Your task to perform on an android device: read, delete, or share a saved page in the chrome app Image 0: 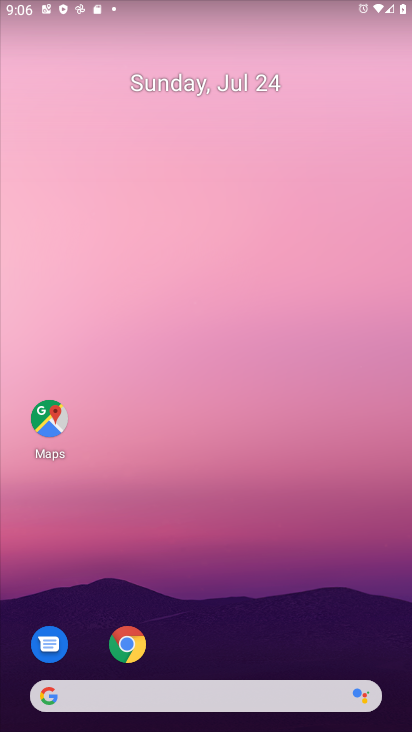
Step 0: drag from (213, 713) to (272, 207)
Your task to perform on an android device: read, delete, or share a saved page in the chrome app Image 1: 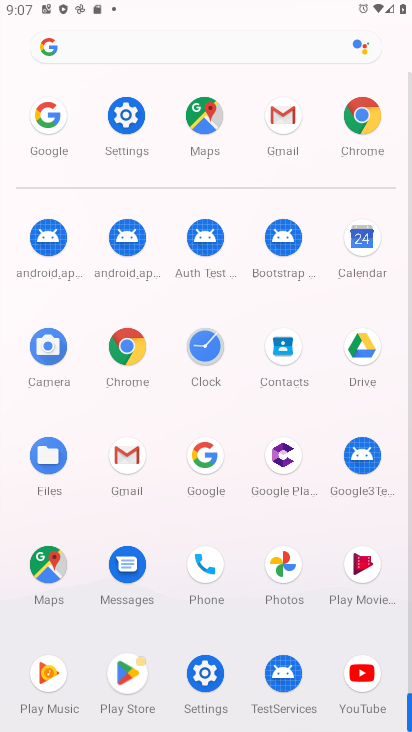
Step 1: click (112, 348)
Your task to perform on an android device: read, delete, or share a saved page in the chrome app Image 2: 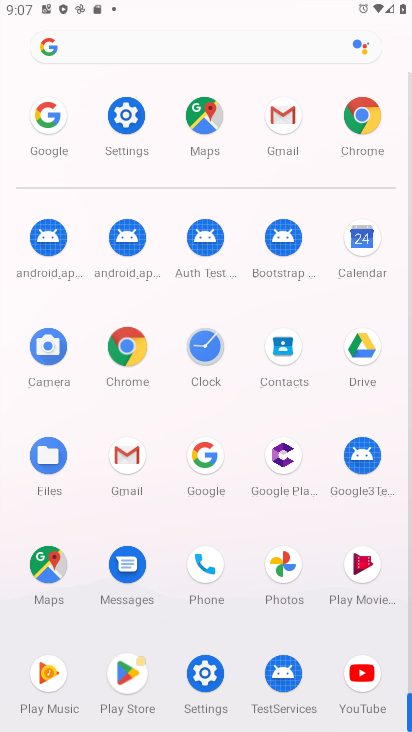
Step 2: click (112, 348)
Your task to perform on an android device: read, delete, or share a saved page in the chrome app Image 3: 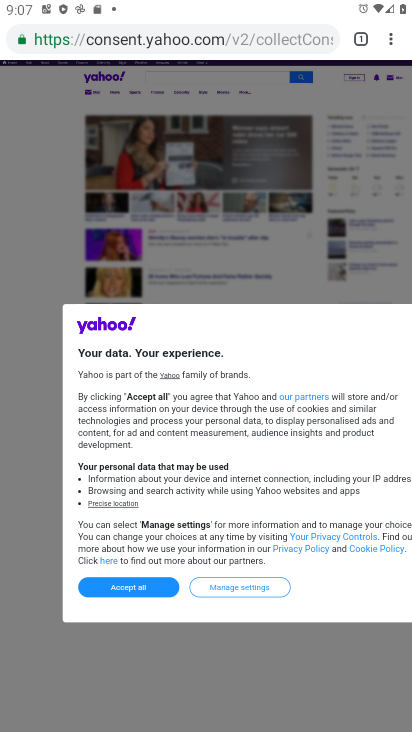
Step 3: drag from (391, 29) to (260, 258)
Your task to perform on an android device: read, delete, or share a saved page in the chrome app Image 4: 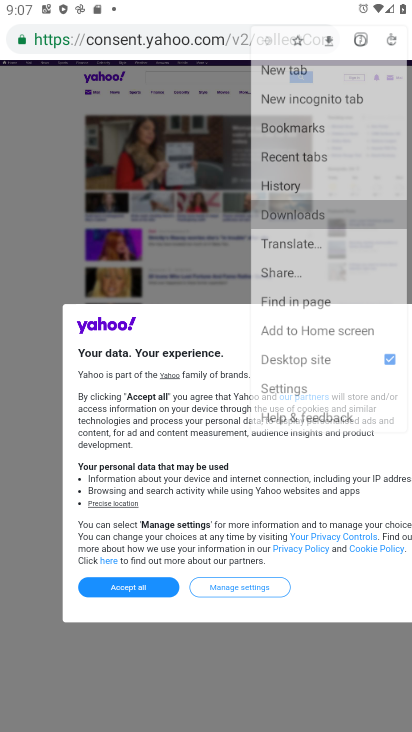
Step 4: click (274, 257)
Your task to perform on an android device: read, delete, or share a saved page in the chrome app Image 5: 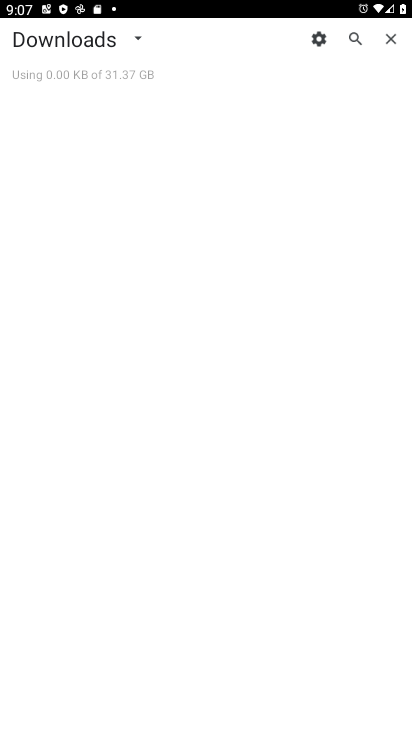
Step 5: click (137, 34)
Your task to perform on an android device: read, delete, or share a saved page in the chrome app Image 6: 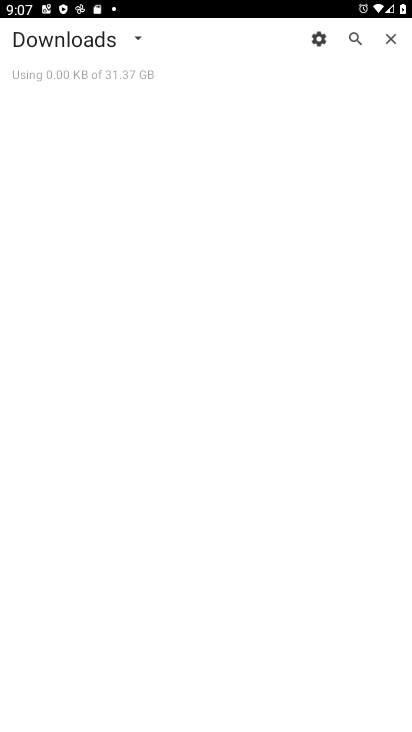
Step 6: click (141, 36)
Your task to perform on an android device: read, delete, or share a saved page in the chrome app Image 7: 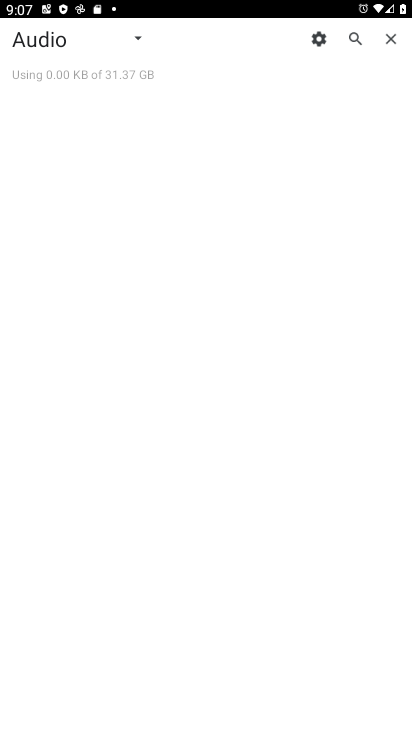
Step 7: click (136, 38)
Your task to perform on an android device: read, delete, or share a saved page in the chrome app Image 8: 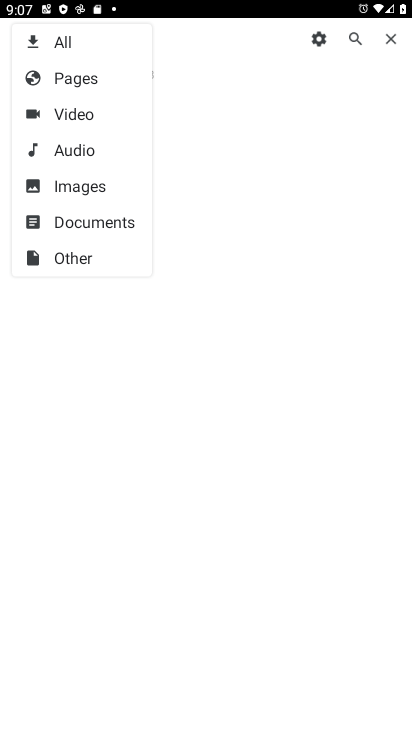
Step 8: click (91, 108)
Your task to perform on an android device: read, delete, or share a saved page in the chrome app Image 9: 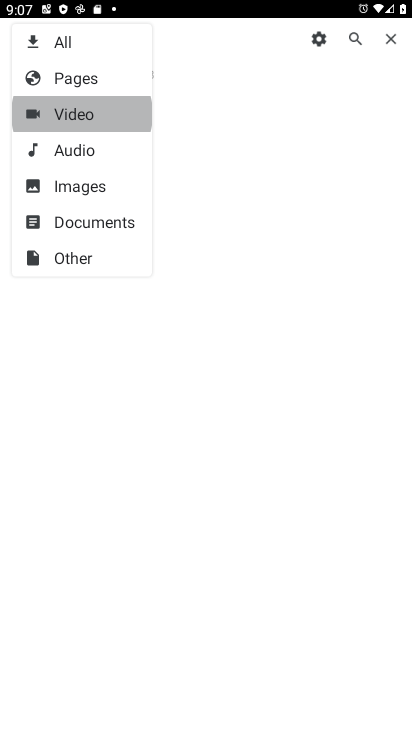
Step 9: click (90, 107)
Your task to perform on an android device: read, delete, or share a saved page in the chrome app Image 10: 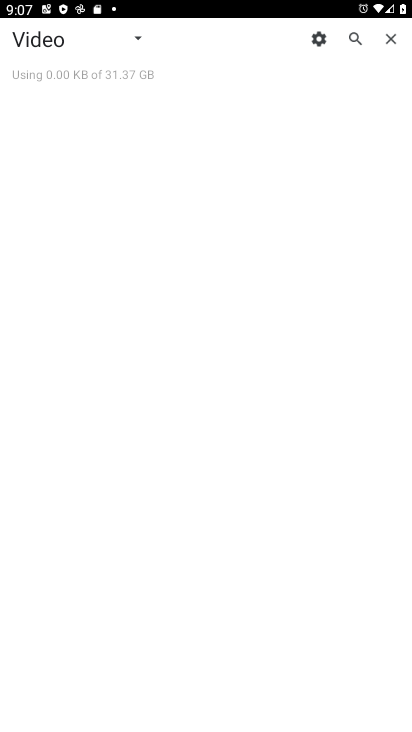
Step 10: task complete